Your task to perform on an android device: Turn off the flashlight Image 0: 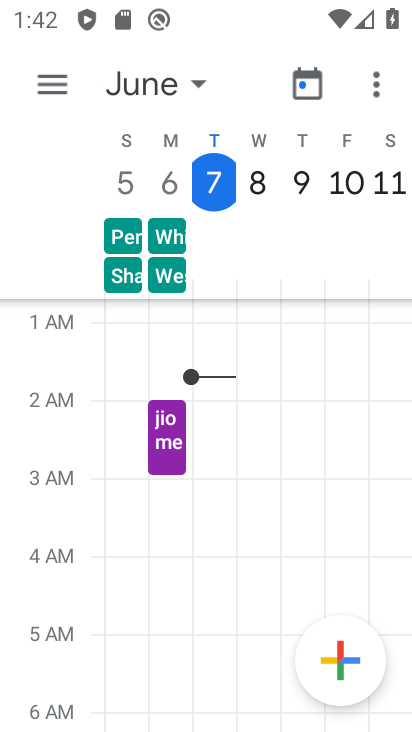
Step 0: press home button
Your task to perform on an android device: Turn off the flashlight Image 1: 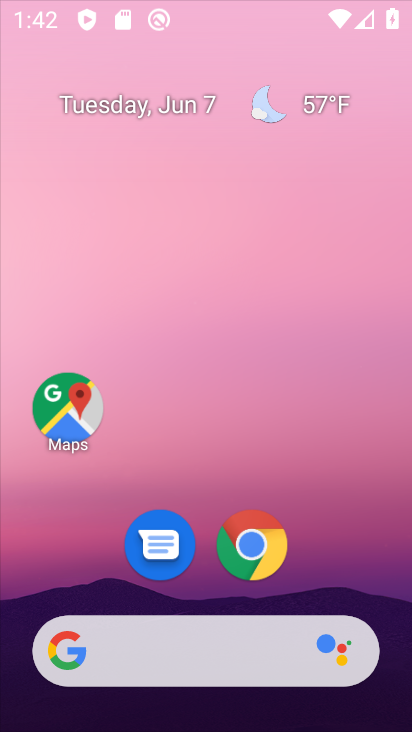
Step 1: task complete